Your task to perform on an android device: toggle translation in the chrome app Image 0: 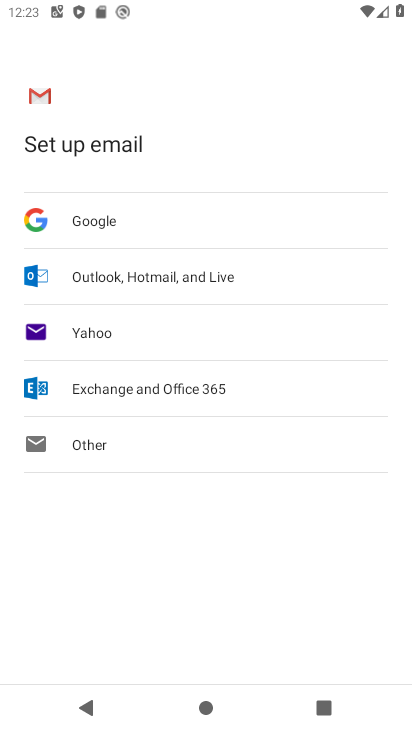
Step 0: press home button
Your task to perform on an android device: toggle translation in the chrome app Image 1: 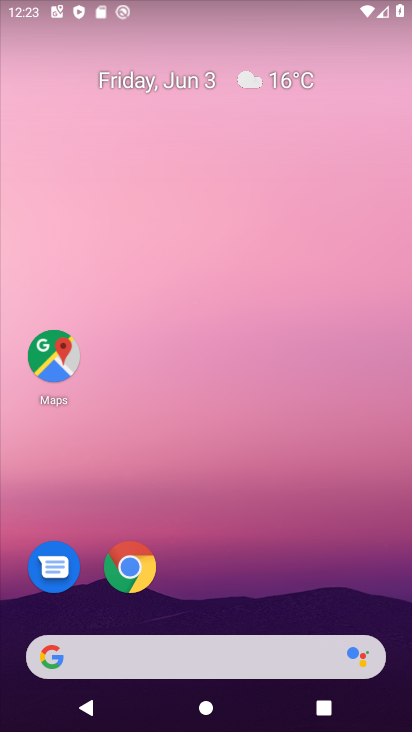
Step 1: click (121, 558)
Your task to perform on an android device: toggle translation in the chrome app Image 2: 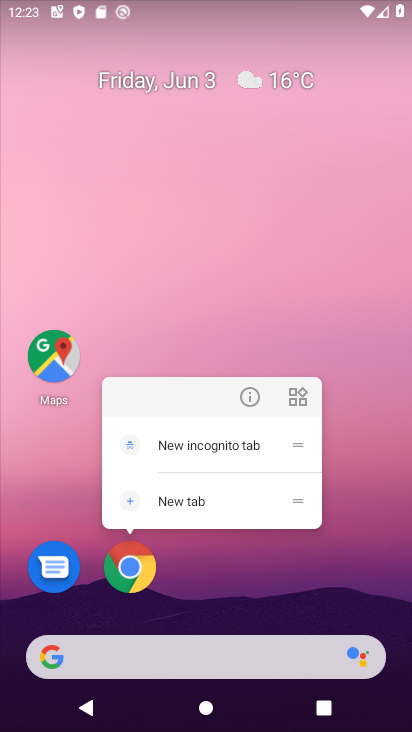
Step 2: click (120, 570)
Your task to perform on an android device: toggle translation in the chrome app Image 3: 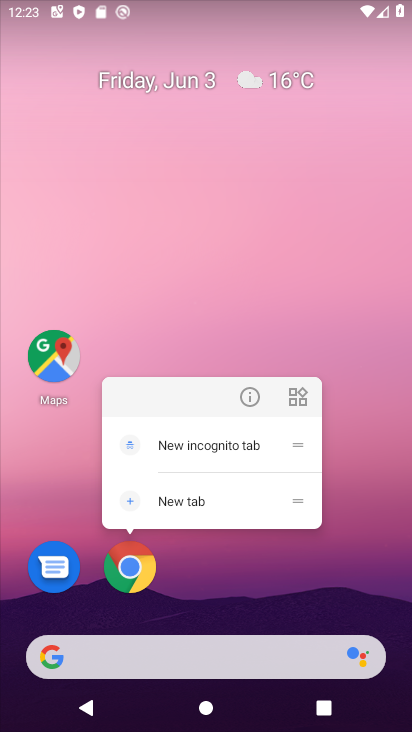
Step 3: click (121, 550)
Your task to perform on an android device: toggle translation in the chrome app Image 4: 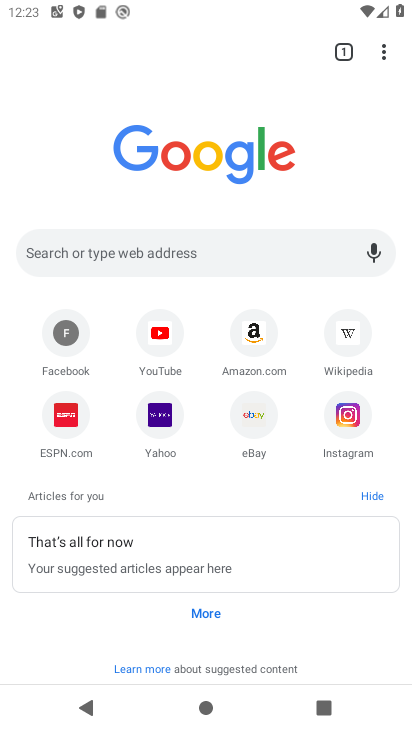
Step 4: click (389, 47)
Your task to perform on an android device: toggle translation in the chrome app Image 5: 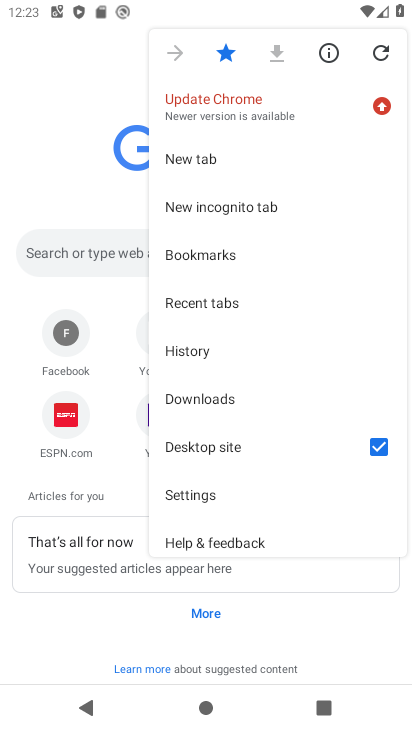
Step 5: click (248, 490)
Your task to perform on an android device: toggle translation in the chrome app Image 6: 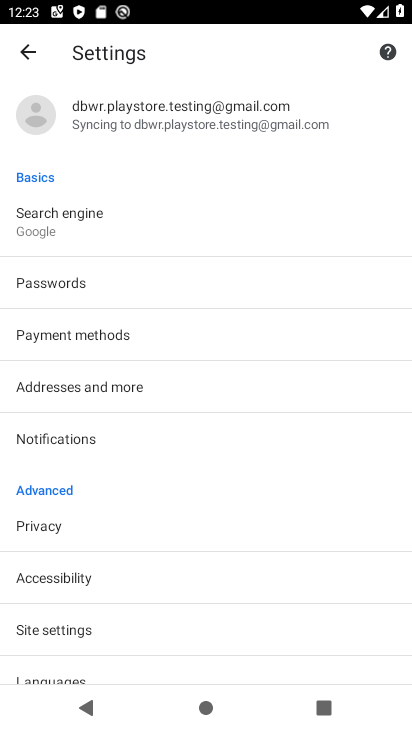
Step 6: drag from (216, 594) to (208, 431)
Your task to perform on an android device: toggle translation in the chrome app Image 7: 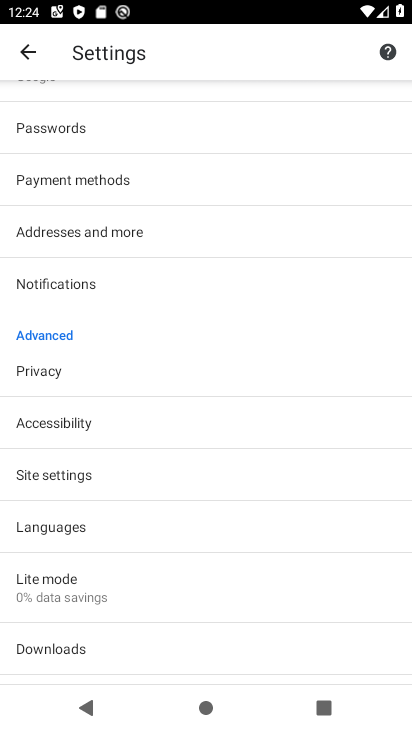
Step 7: click (161, 526)
Your task to perform on an android device: toggle translation in the chrome app Image 8: 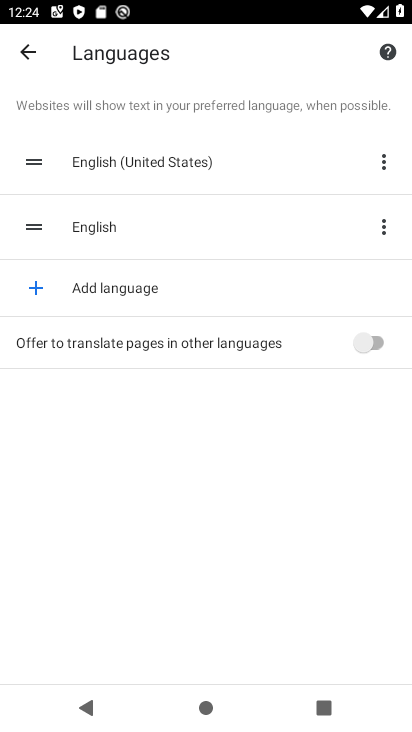
Step 8: click (355, 344)
Your task to perform on an android device: toggle translation in the chrome app Image 9: 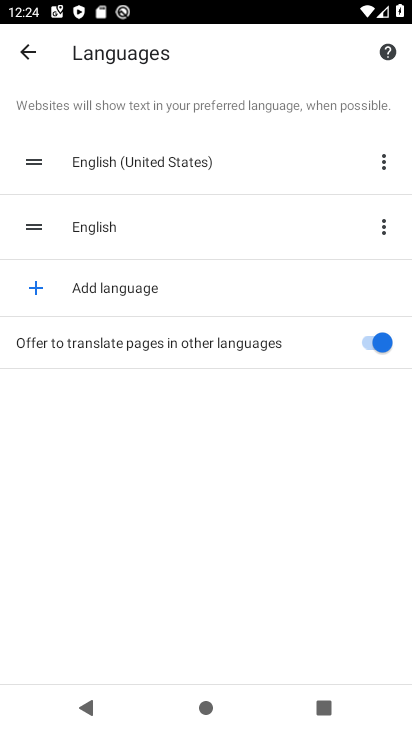
Step 9: task complete